Your task to perform on an android device: Turn off the flashlight Image 0: 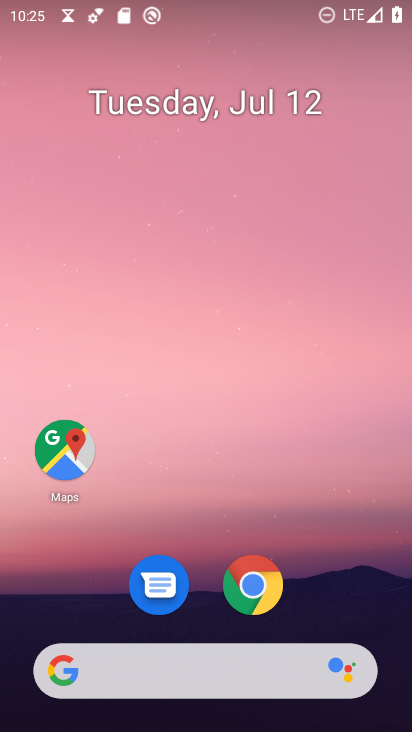
Step 0: drag from (241, 206) to (239, 406)
Your task to perform on an android device: Turn off the flashlight Image 1: 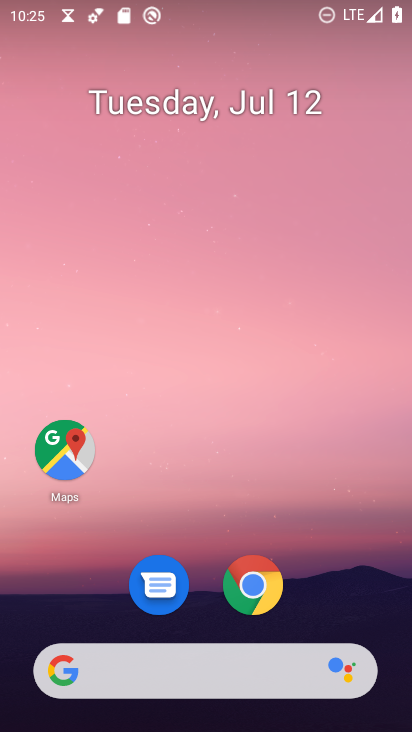
Step 1: task complete